Your task to perform on an android device: turn on translation in the chrome app Image 0: 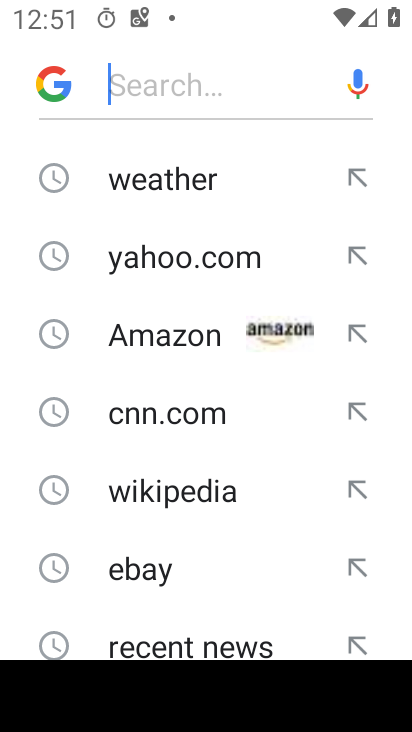
Step 0: press home button
Your task to perform on an android device: turn on translation in the chrome app Image 1: 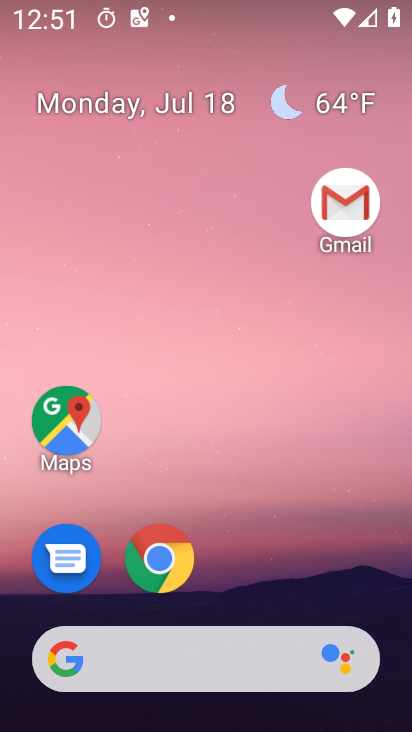
Step 1: drag from (369, 587) to (395, 81)
Your task to perform on an android device: turn on translation in the chrome app Image 2: 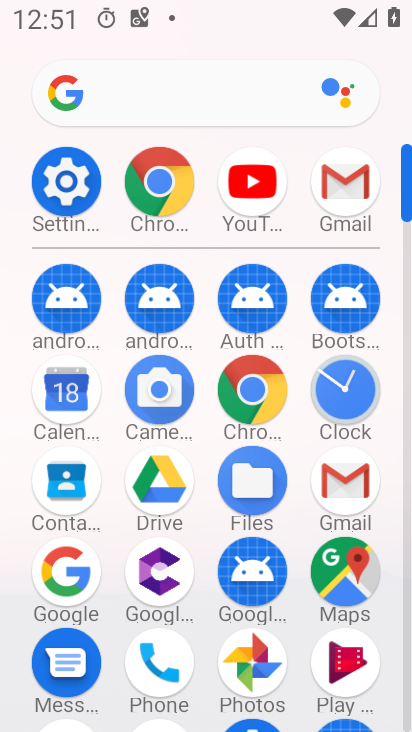
Step 2: click (262, 381)
Your task to perform on an android device: turn on translation in the chrome app Image 3: 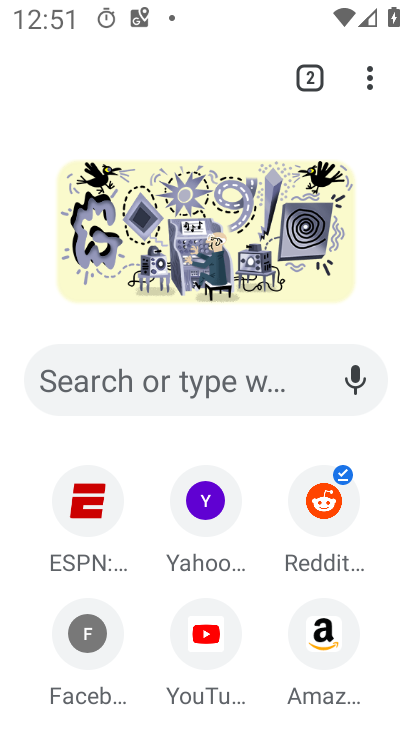
Step 3: click (366, 82)
Your task to perform on an android device: turn on translation in the chrome app Image 4: 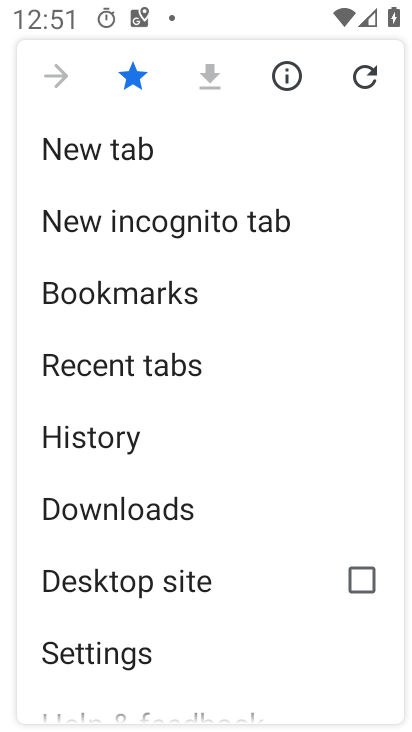
Step 4: drag from (345, 379) to (347, 268)
Your task to perform on an android device: turn on translation in the chrome app Image 5: 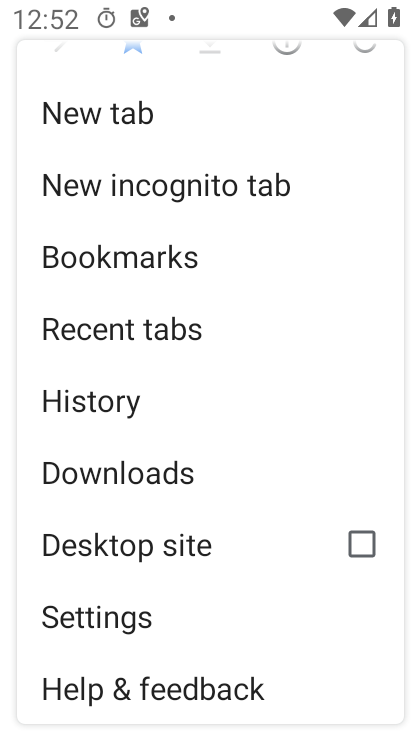
Step 5: click (170, 607)
Your task to perform on an android device: turn on translation in the chrome app Image 6: 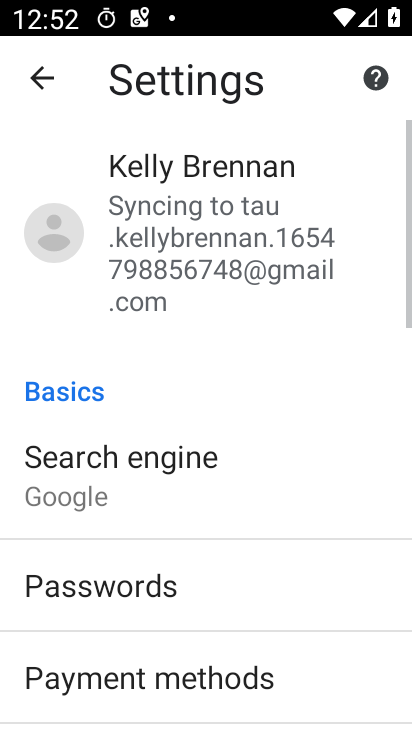
Step 6: drag from (297, 487) to (319, 416)
Your task to perform on an android device: turn on translation in the chrome app Image 7: 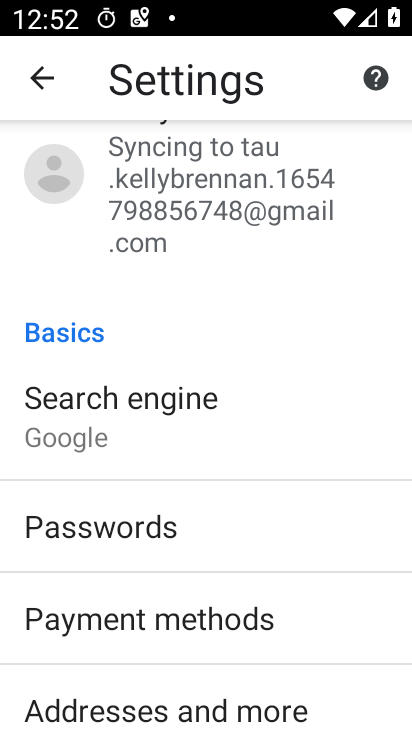
Step 7: drag from (331, 512) to (351, 448)
Your task to perform on an android device: turn on translation in the chrome app Image 8: 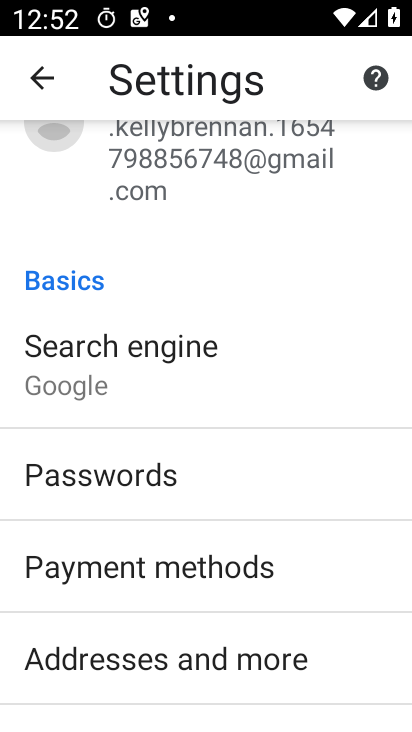
Step 8: drag from (349, 551) to (365, 477)
Your task to perform on an android device: turn on translation in the chrome app Image 9: 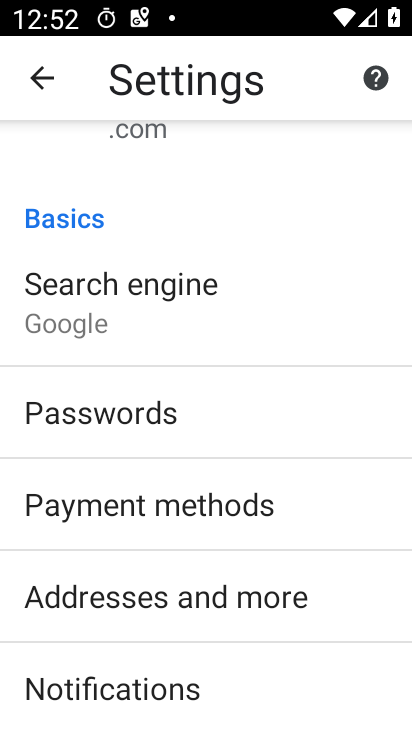
Step 9: drag from (361, 536) to (365, 464)
Your task to perform on an android device: turn on translation in the chrome app Image 10: 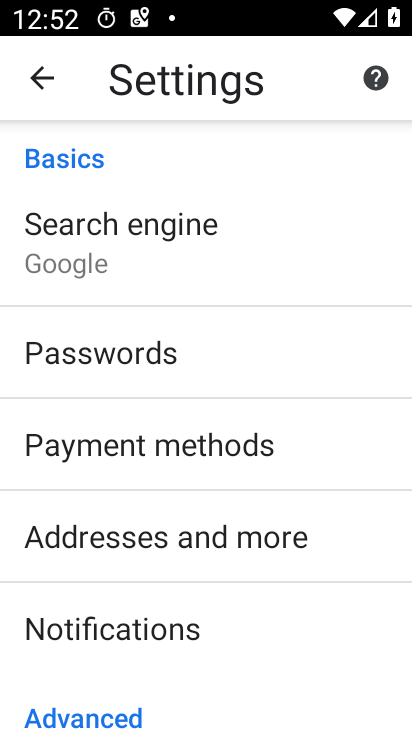
Step 10: drag from (365, 538) to (370, 476)
Your task to perform on an android device: turn on translation in the chrome app Image 11: 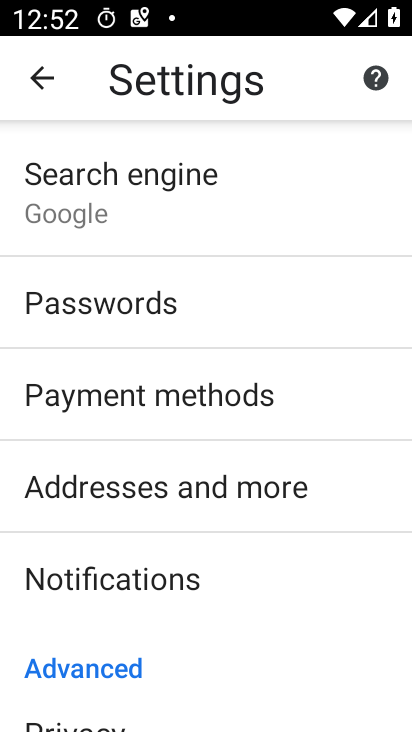
Step 11: drag from (369, 531) to (375, 453)
Your task to perform on an android device: turn on translation in the chrome app Image 12: 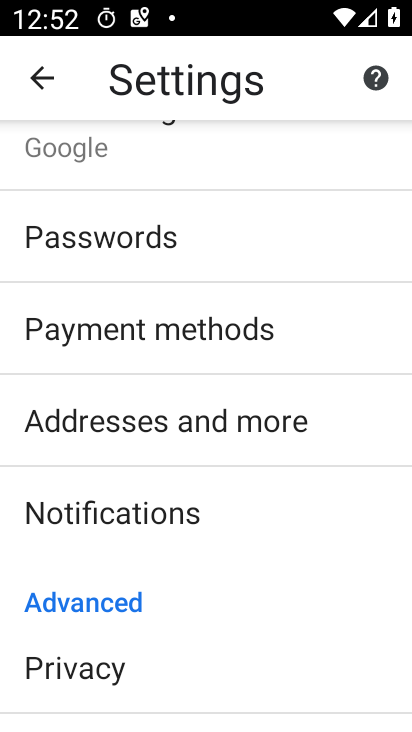
Step 12: drag from (371, 532) to (372, 489)
Your task to perform on an android device: turn on translation in the chrome app Image 13: 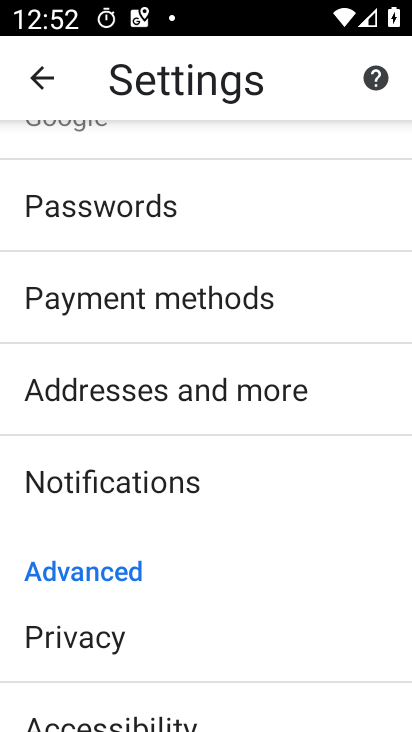
Step 13: drag from (369, 555) to (378, 517)
Your task to perform on an android device: turn on translation in the chrome app Image 14: 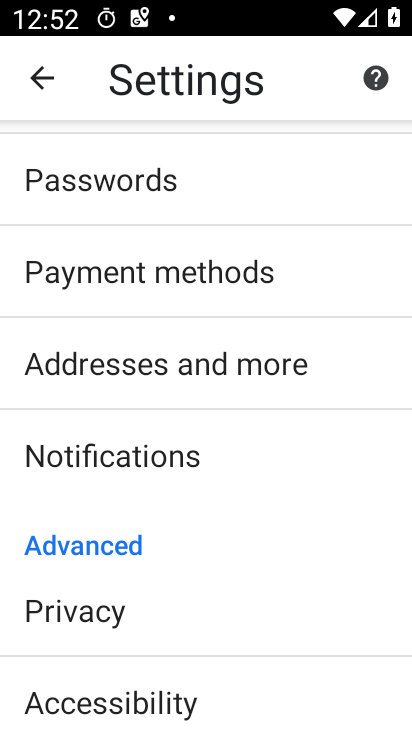
Step 14: drag from (331, 578) to (329, 466)
Your task to perform on an android device: turn on translation in the chrome app Image 15: 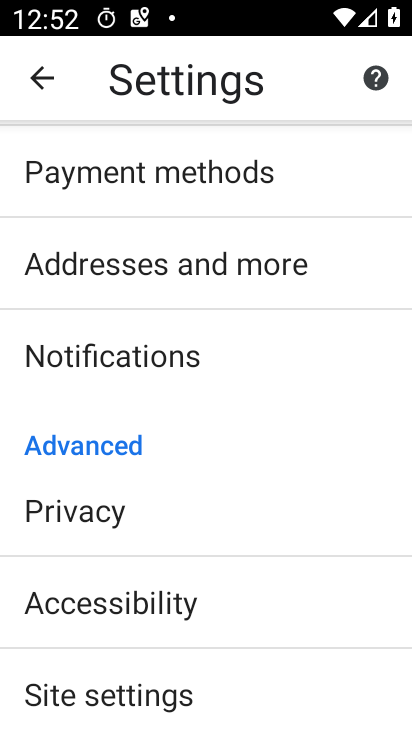
Step 15: drag from (317, 558) to (314, 471)
Your task to perform on an android device: turn on translation in the chrome app Image 16: 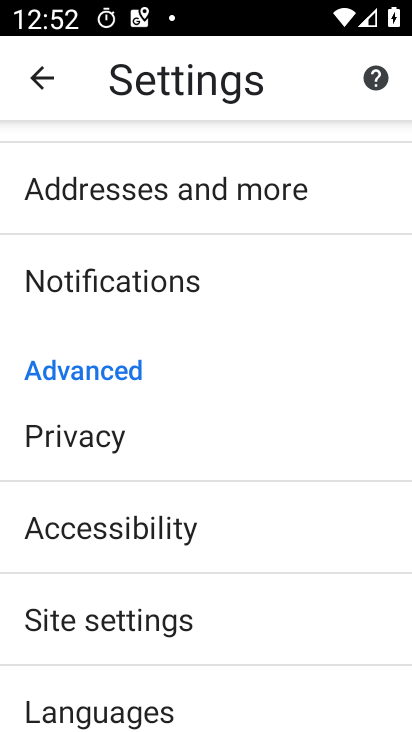
Step 16: drag from (292, 619) to (295, 492)
Your task to perform on an android device: turn on translation in the chrome app Image 17: 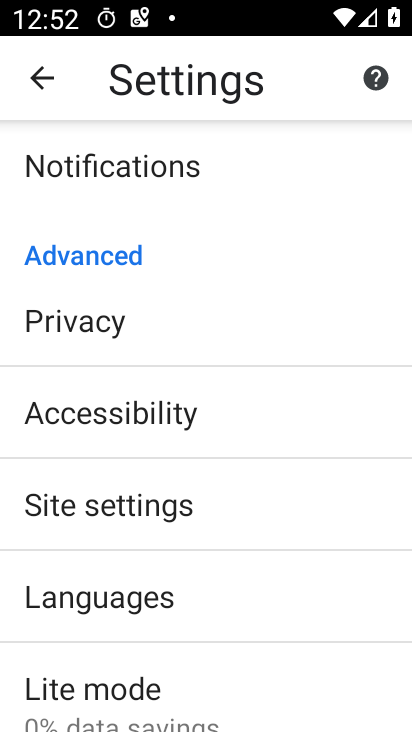
Step 17: click (291, 583)
Your task to perform on an android device: turn on translation in the chrome app Image 18: 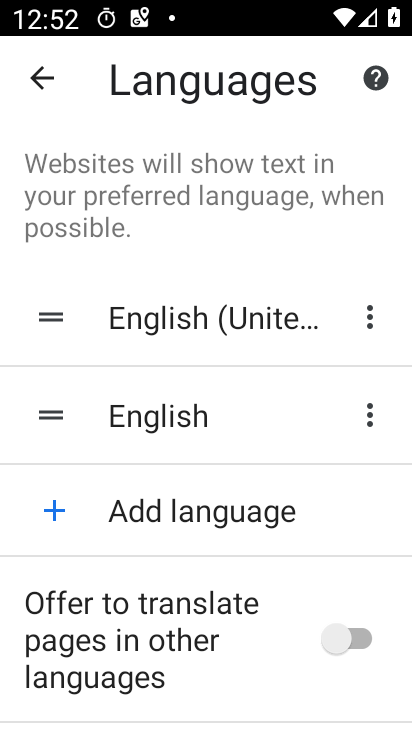
Step 18: click (333, 626)
Your task to perform on an android device: turn on translation in the chrome app Image 19: 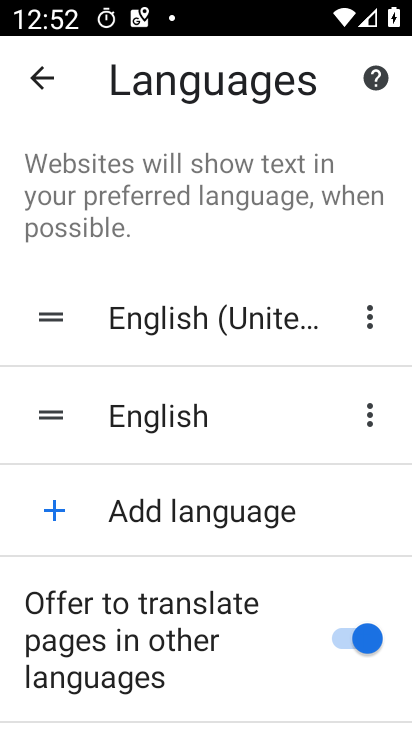
Step 19: task complete